Your task to perform on an android device: manage bookmarks in the chrome app Image 0: 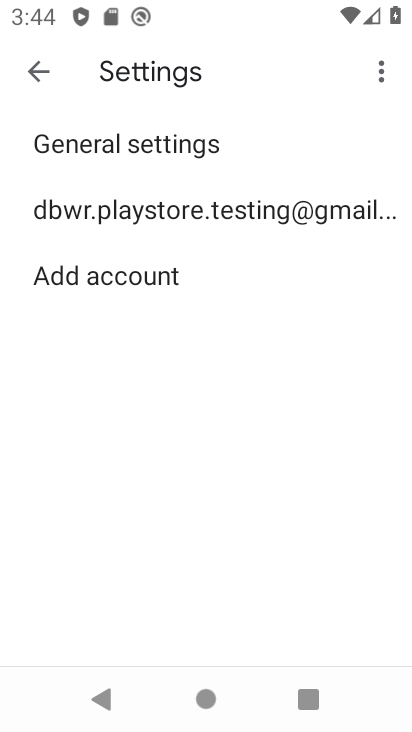
Step 0: click (211, 694)
Your task to perform on an android device: manage bookmarks in the chrome app Image 1: 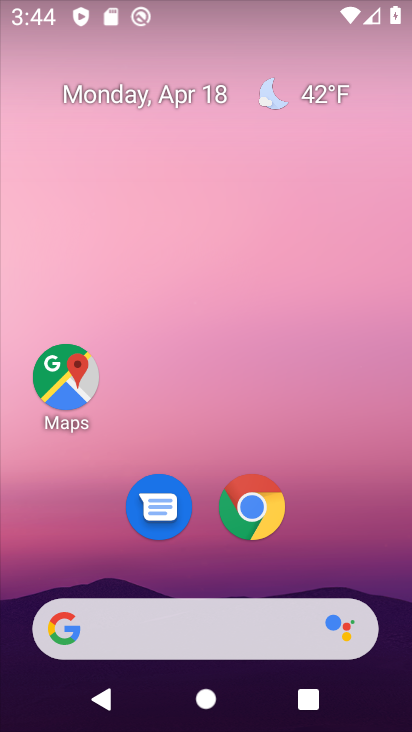
Step 1: drag from (193, 574) to (211, 165)
Your task to perform on an android device: manage bookmarks in the chrome app Image 2: 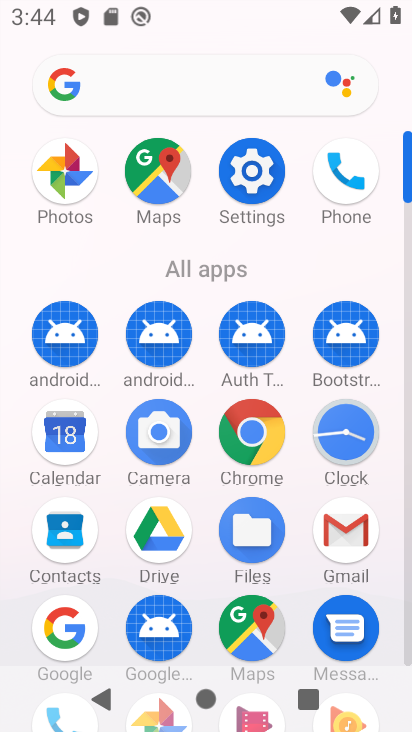
Step 2: click (248, 435)
Your task to perform on an android device: manage bookmarks in the chrome app Image 3: 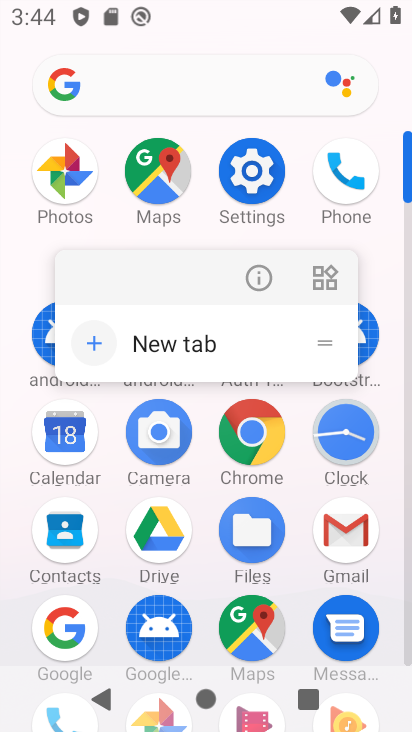
Step 3: click (264, 425)
Your task to perform on an android device: manage bookmarks in the chrome app Image 4: 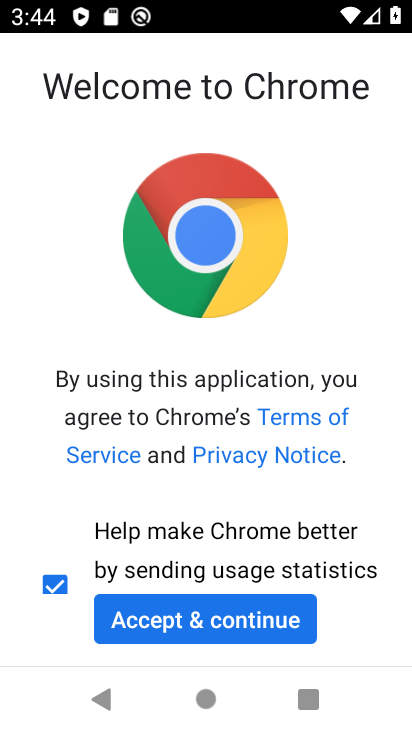
Step 4: click (213, 620)
Your task to perform on an android device: manage bookmarks in the chrome app Image 5: 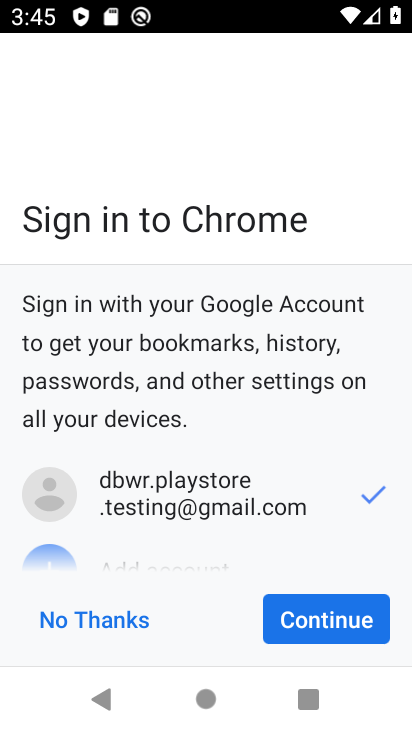
Step 5: click (323, 608)
Your task to perform on an android device: manage bookmarks in the chrome app Image 6: 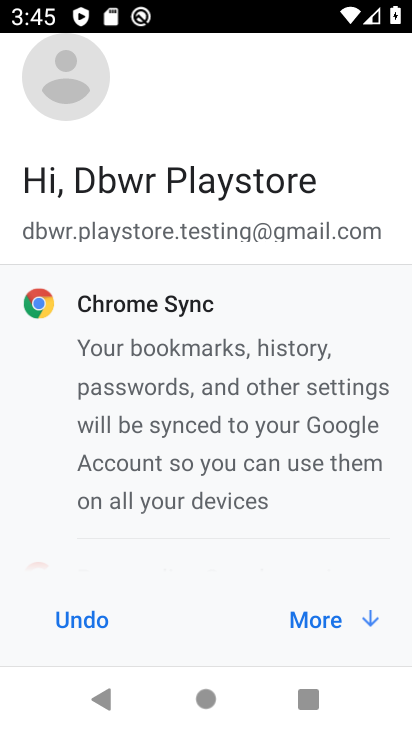
Step 6: click (325, 618)
Your task to perform on an android device: manage bookmarks in the chrome app Image 7: 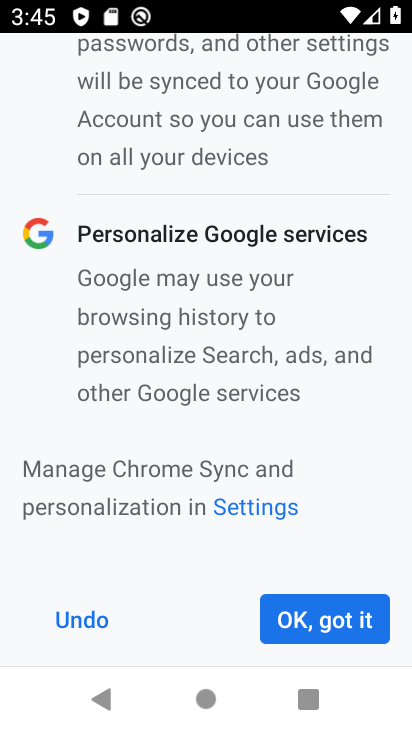
Step 7: click (331, 610)
Your task to perform on an android device: manage bookmarks in the chrome app Image 8: 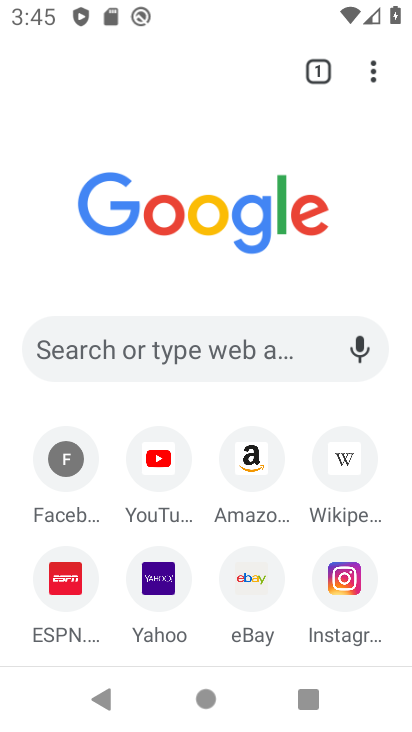
Step 8: click (372, 67)
Your task to perform on an android device: manage bookmarks in the chrome app Image 9: 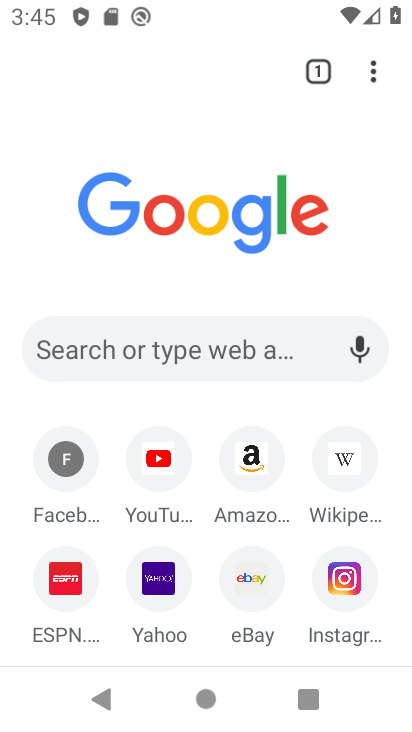
Step 9: click (376, 70)
Your task to perform on an android device: manage bookmarks in the chrome app Image 10: 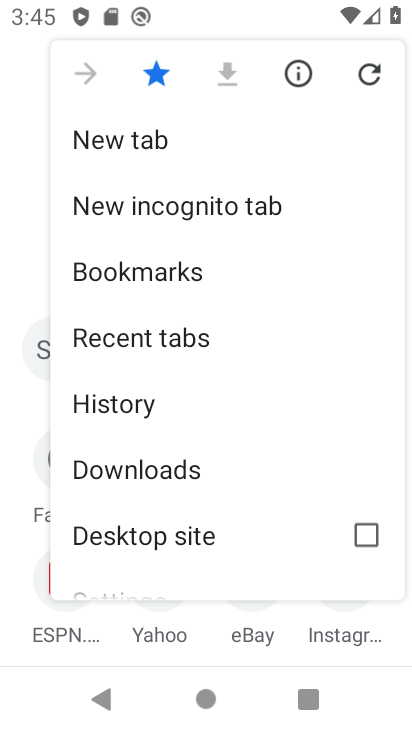
Step 10: click (136, 279)
Your task to perform on an android device: manage bookmarks in the chrome app Image 11: 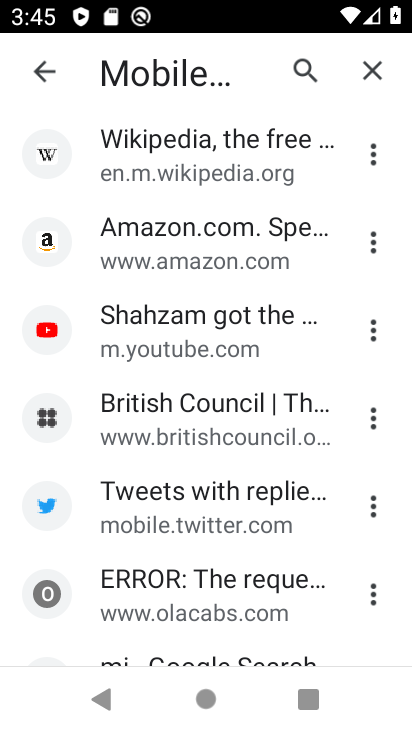
Step 11: drag from (209, 531) to (275, 133)
Your task to perform on an android device: manage bookmarks in the chrome app Image 12: 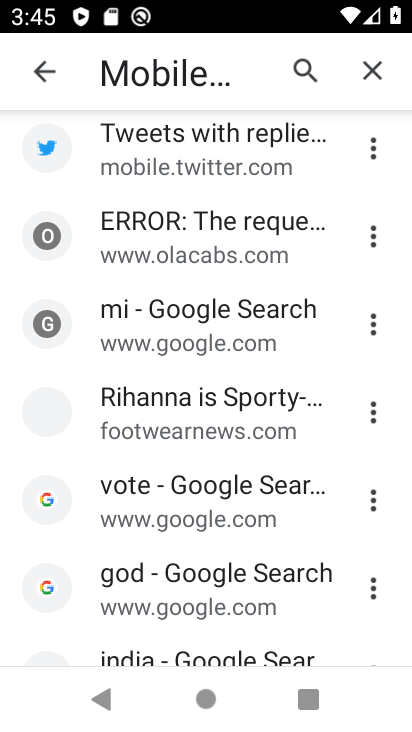
Step 12: drag from (183, 468) to (211, 279)
Your task to perform on an android device: manage bookmarks in the chrome app Image 13: 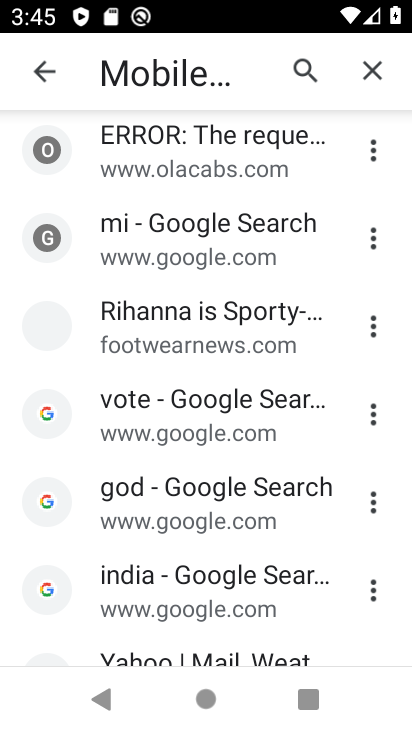
Step 13: drag from (213, 575) to (233, 234)
Your task to perform on an android device: manage bookmarks in the chrome app Image 14: 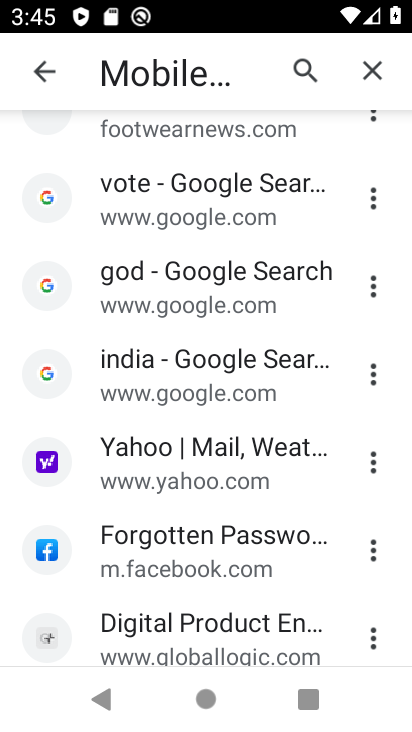
Step 14: drag from (236, 514) to (240, 301)
Your task to perform on an android device: manage bookmarks in the chrome app Image 15: 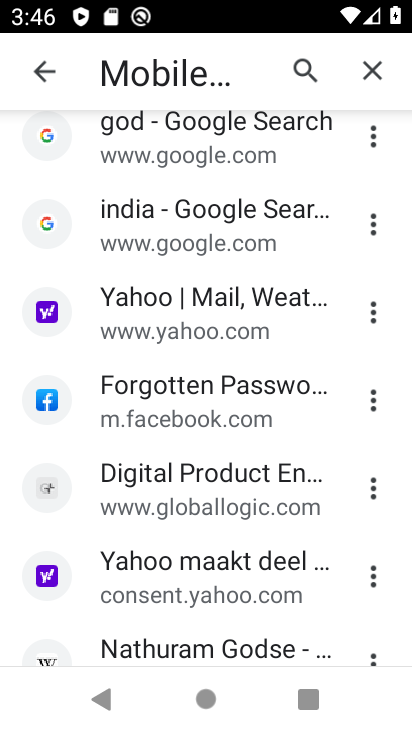
Step 15: drag from (280, 532) to (308, 329)
Your task to perform on an android device: manage bookmarks in the chrome app Image 16: 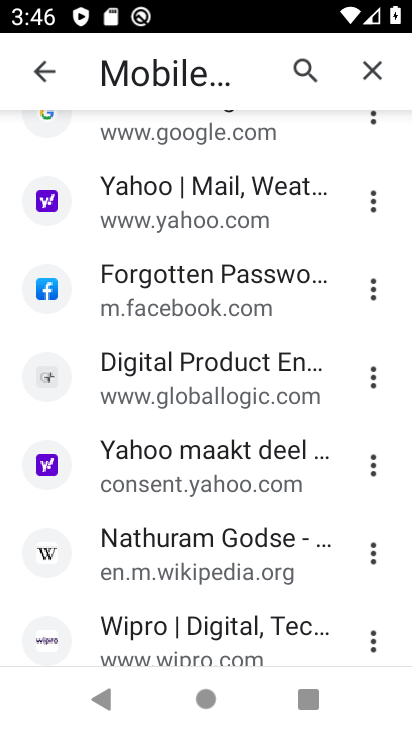
Step 16: click (372, 201)
Your task to perform on an android device: manage bookmarks in the chrome app Image 17: 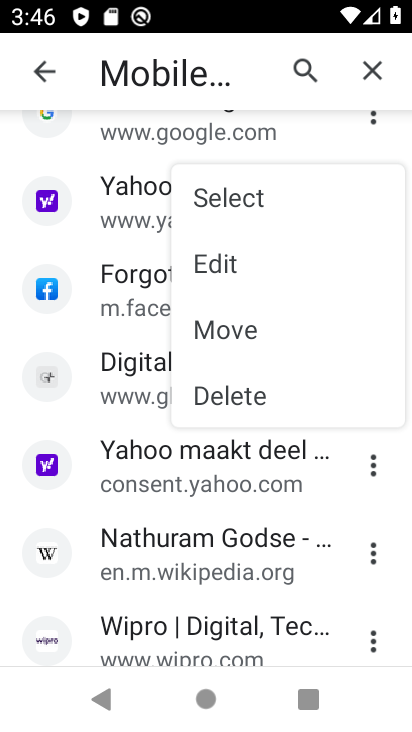
Step 17: task complete